Your task to perform on an android device: Empty the shopping cart on newegg.com. Search for "logitech g903" on newegg.com, select the first entry, and add it to the cart. Image 0: 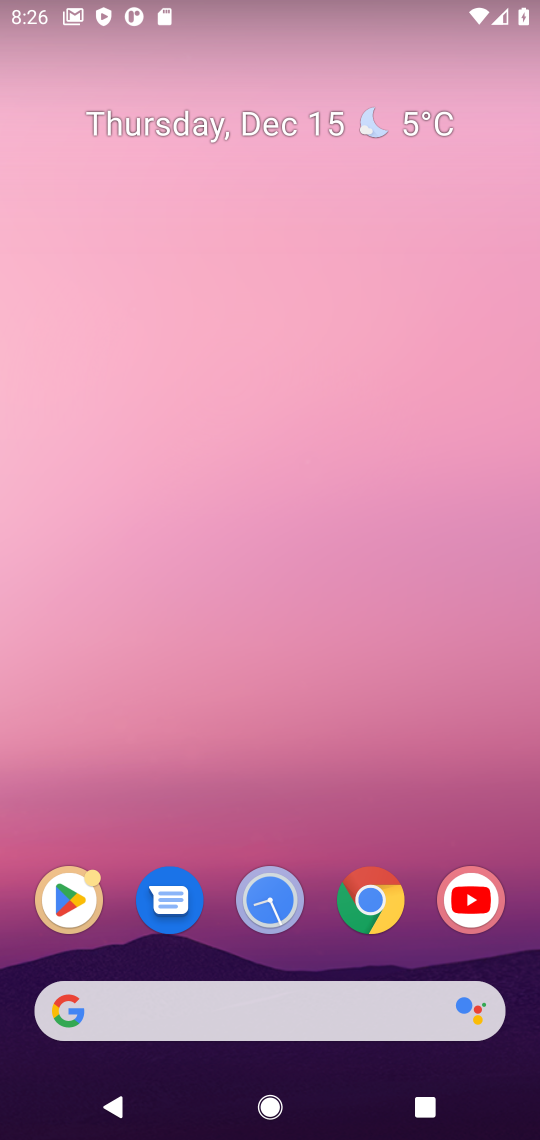
Step 0: click (373, 899)
Your task to perform on an android device: Empty the shopping cart on newegg.com. Search for "logitech g903" on newegg.com, select the first entry, and add it to the cart. Image 1: 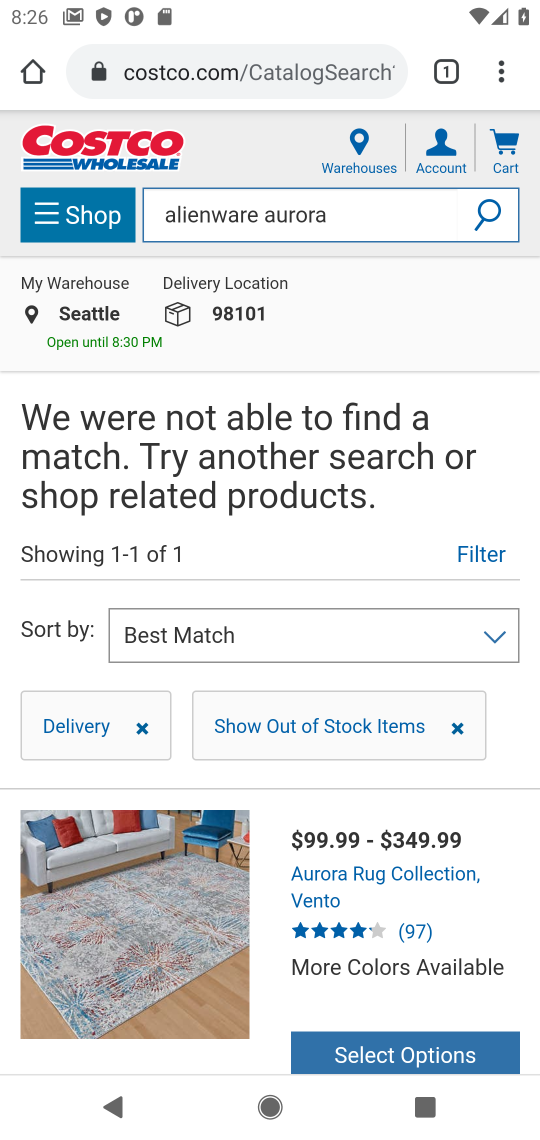
Step 1: click (324, 59)
Your task to perform on an android device: Empty the shopping cart on newegg.com. Search for "logitech g903" on newegg.com, select the first entry, and add it to the cart. Image 2: 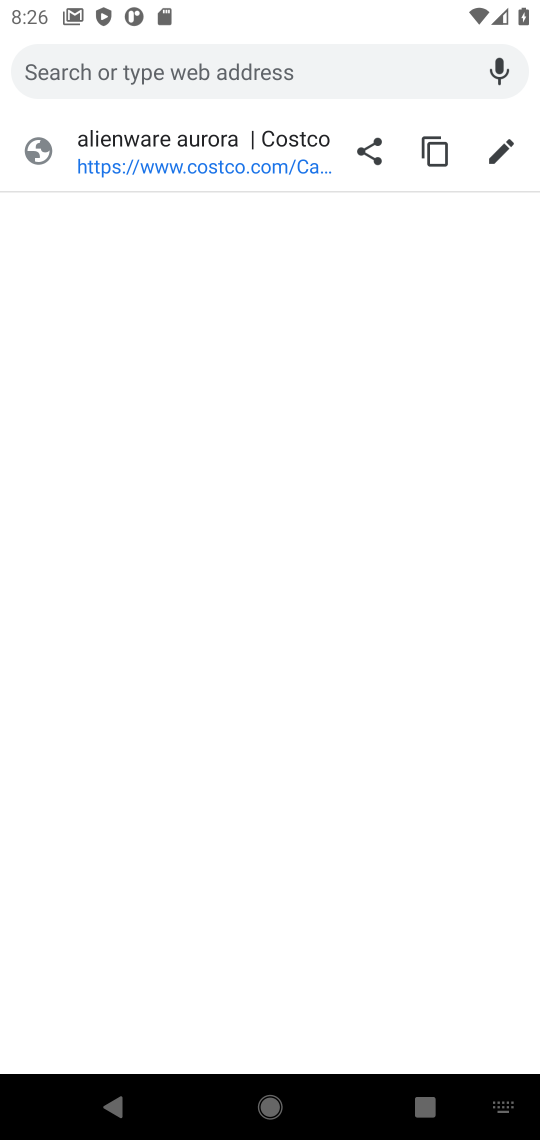
Step 2: type "newegg.com"
Your task to perform on an android device: Empty the shopping cart on newegg.com. Search for "logitech g903" on newegg.com, select the first entry, and add it to the cart. Image 3: 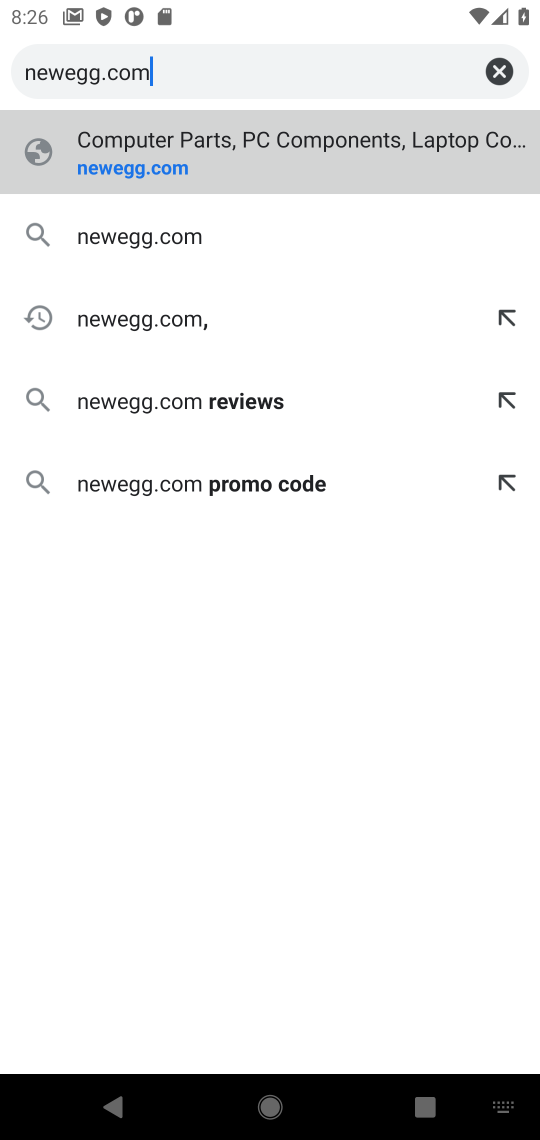
Step 3: click (156, 244)
Your task to perform on an android device: Empty the shopping cart on newegg.com. Search for "logitech g903" on newegg.com, select the first entry, and add it to the cart. Image 4: 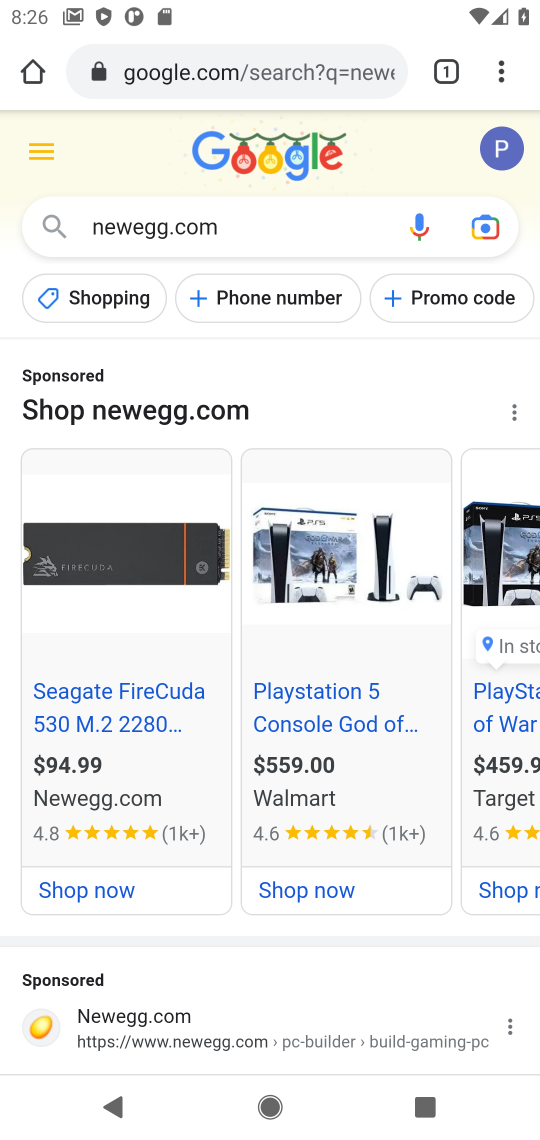
Step 4: click (154, 1019)
Your task to perform on an android device: Empty the shopping cart on newegg.com. Search for "logitech g903" on newegg.com, select the first entry, and add it to the cart. Image 5: 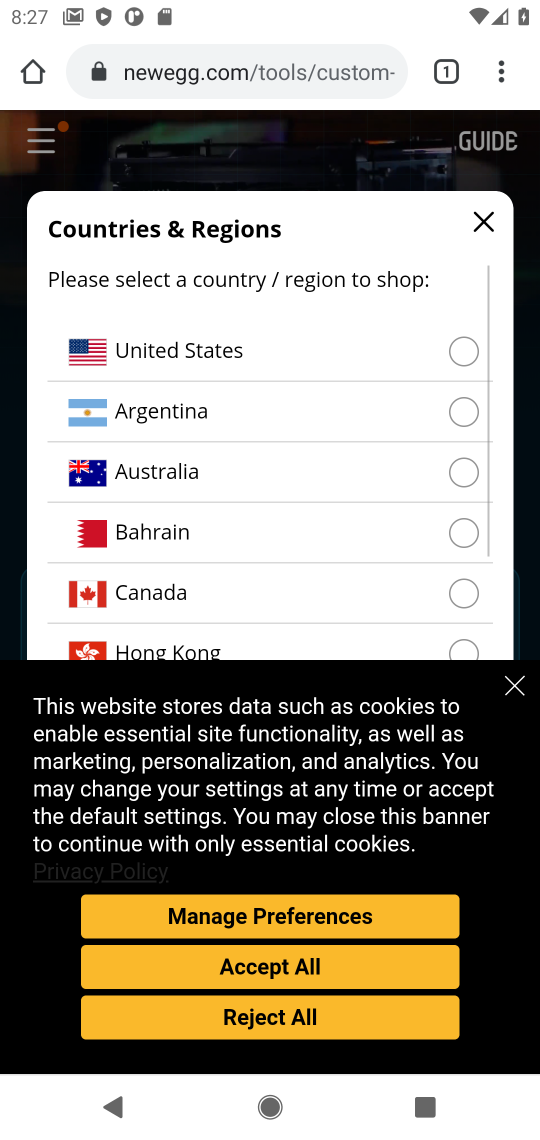
Step 5: press back button
Your task to perform on an android device: Empty the shopping cart on newegg.com. Search for "logitech g903" on newegg.com, select the first entry, and add it to the cart. Image 6: 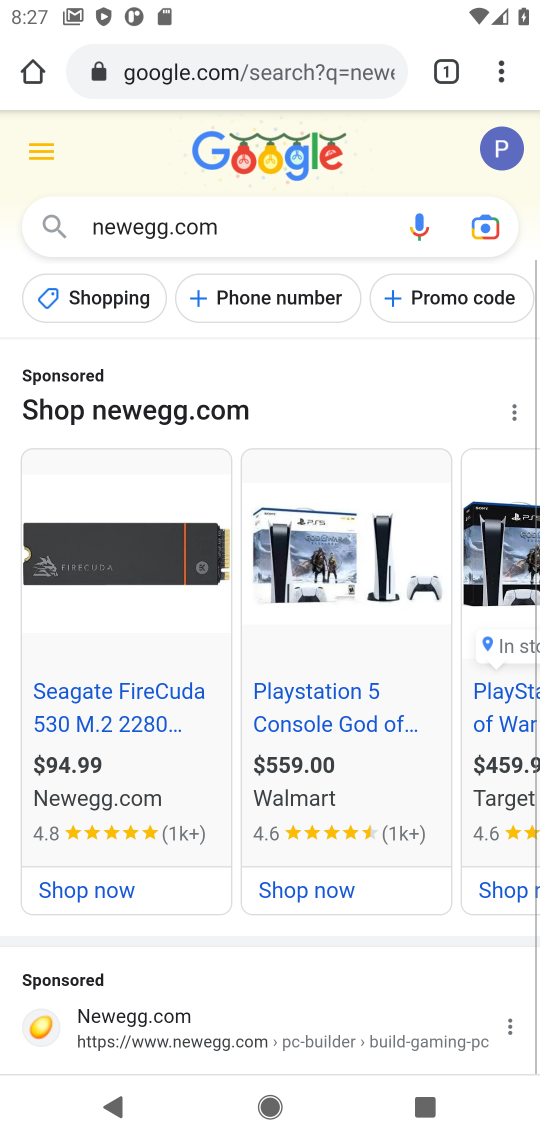
Step 6: drag from (307, 774) to (429, 236)
Your task to perform on an android device: Empty the shopping cart on newegg.com. Search for "logitech g903" on newegg.com, select the first entry, and add it to the cart. Image 7: 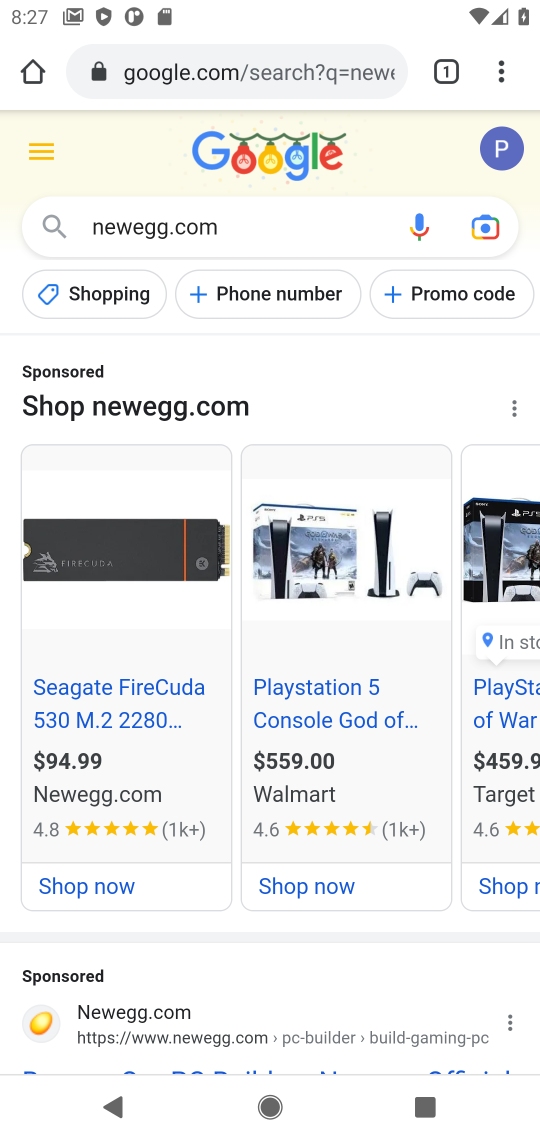
Step 7: drag from (210, 986) to (331, 257)
Your task to perform on an android device: Empty the shopping cart on newegg.com. Search for "logitech g903" on newegg.com, select the first entry, and add it to the cart. Image 8: 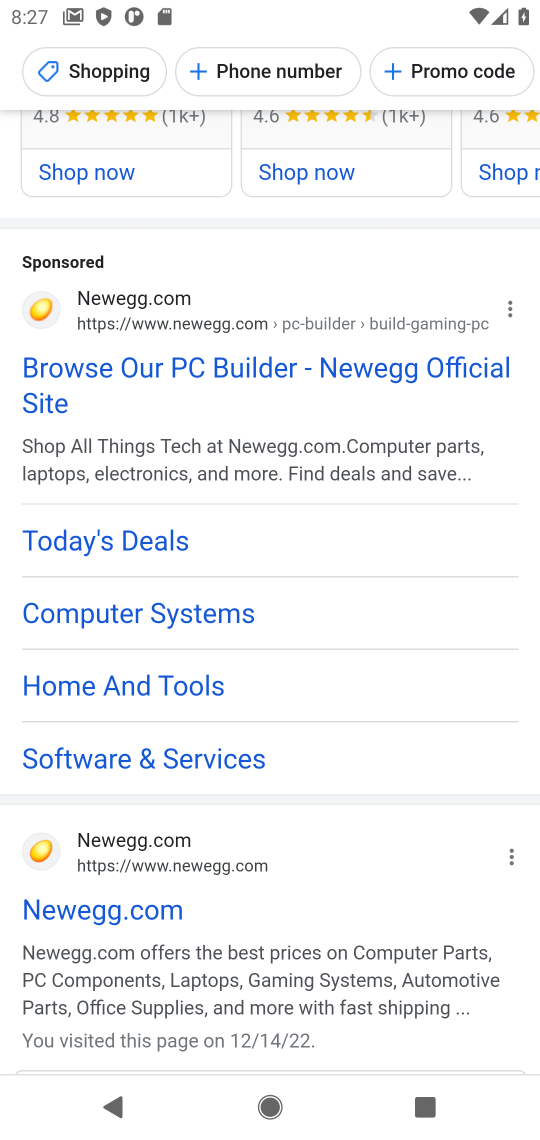
Step 8: click (195, 864)
Your task to perform on an android device: Empty the shopping cart on newegg.com. Search for "logitech g903" on newegg.com, select the first entry, and add it to the cart. Image 9: 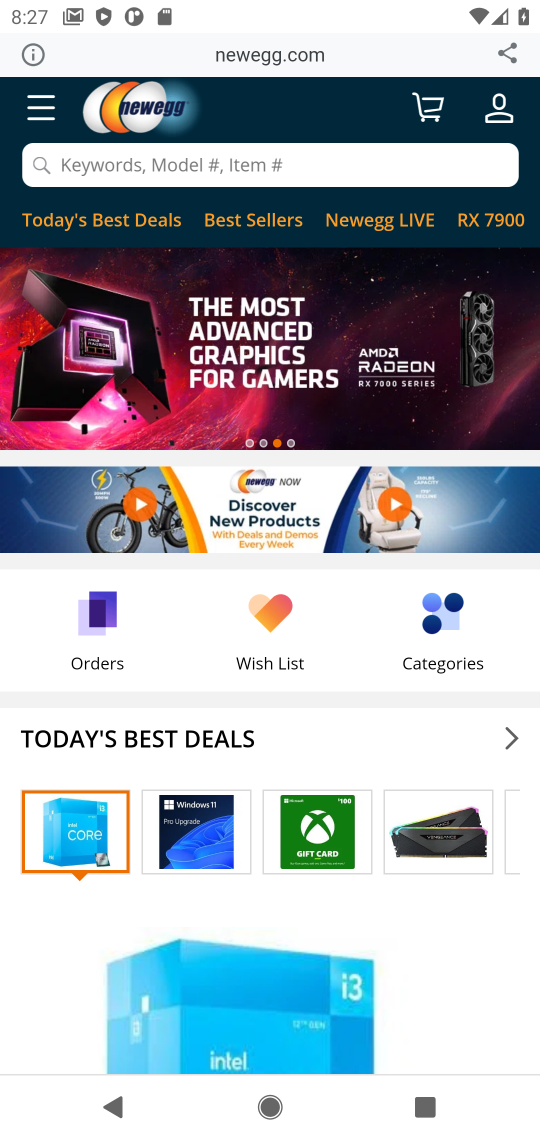
Step 9: click (362, 174)
Your task to perform on an android device: Empty the shopping cart on newegg.com. Search for "logitech g903" on newegg.com, select the first entry, and add it to the cart. Image 10: 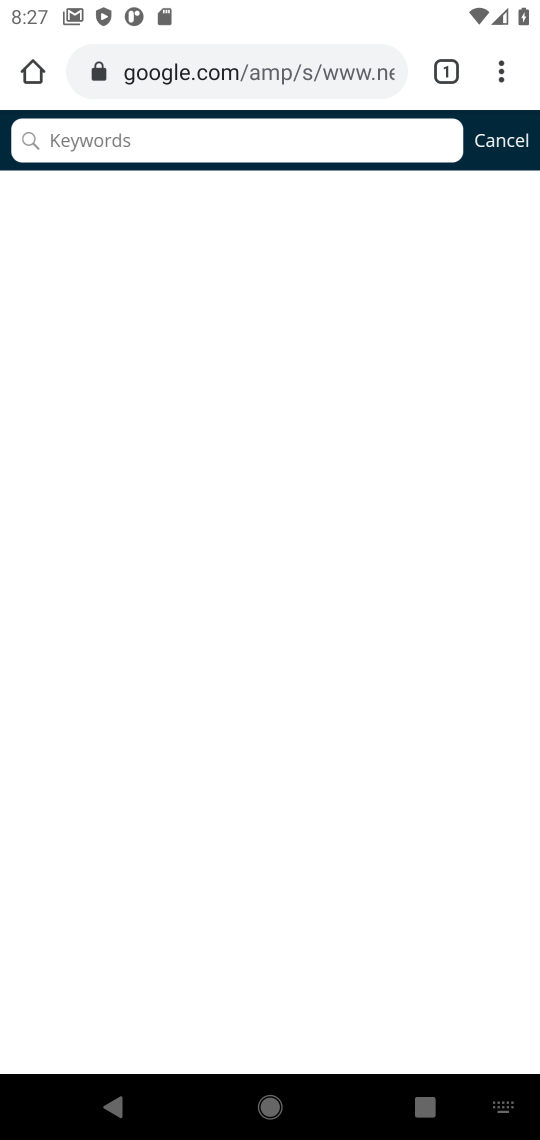
Step 10: click (267, 69)
Your task to perform on an android device: Empty the shopping cart on newegg.com. Search for "logitech g903" on newegg.com, select the first entry, and add it to the cart. Image 11: 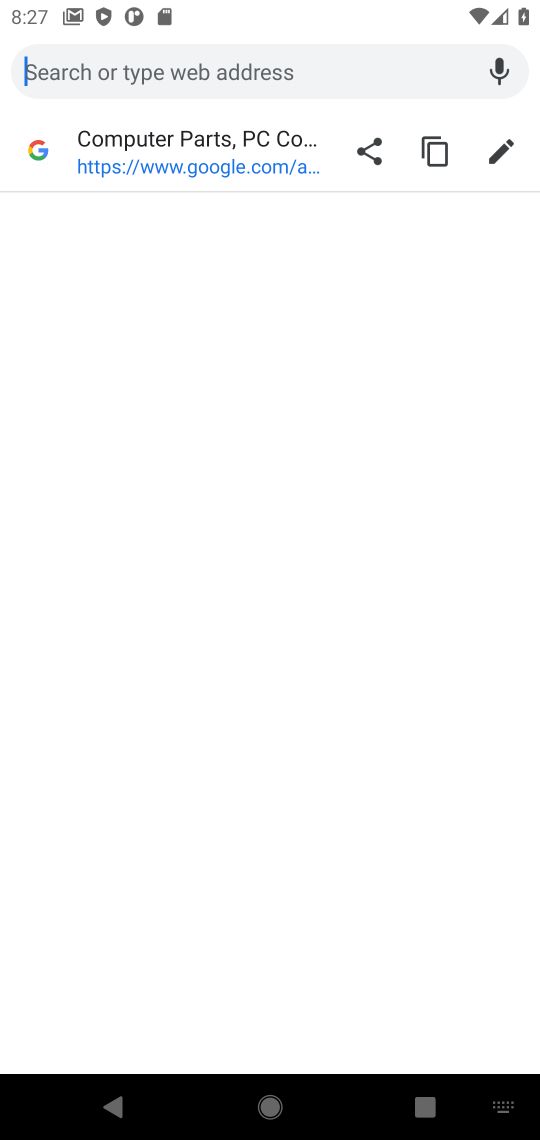
Step 11: type "newegg.com"
Your task to perform on an android device: Empty the shopping cart on newegg.com. Search for "logitech g903" on newegg.com, select the first entry, and add it to the cart. Image 12: 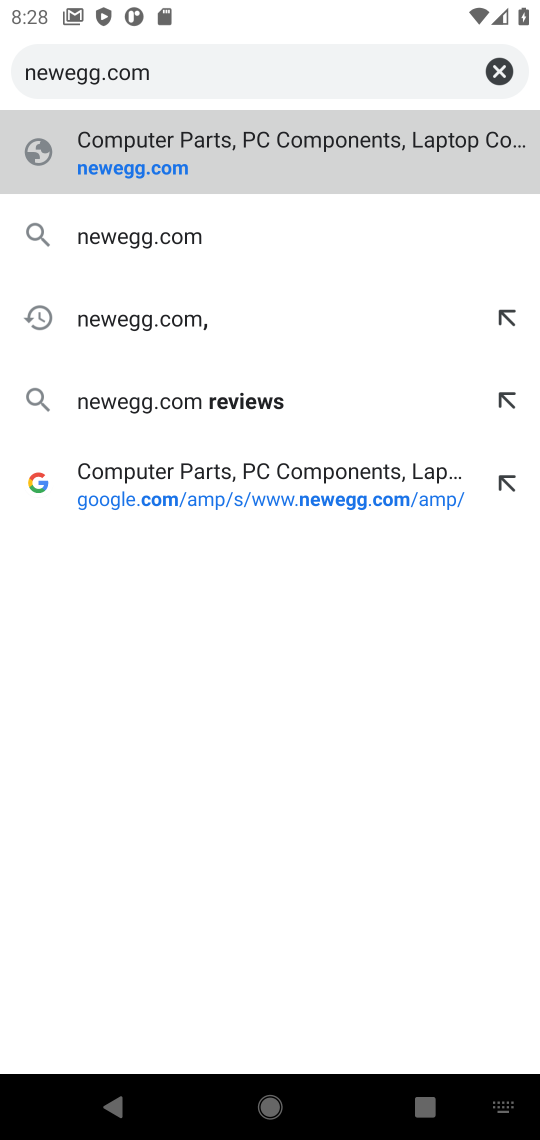
Step 12: click (358, 161)
Your task to perform on an android device: Empty the shopping cart on newegg.com. Search for "logitech g903" on newegg.com, select the first entry, and add it to the cart. Image 13: 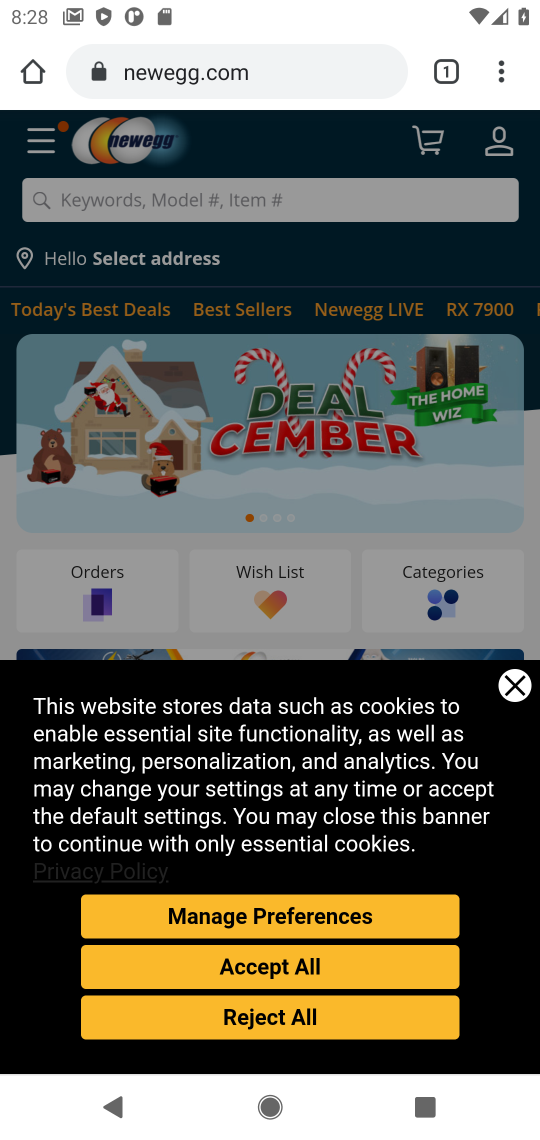
Step 13: click (281, 978)
Your task to perform on an android device: Empty the shopping cart on newegg.com. Search for "logitech g903" on newegg.com, select the first entry, and add it to the cart. Image 14: 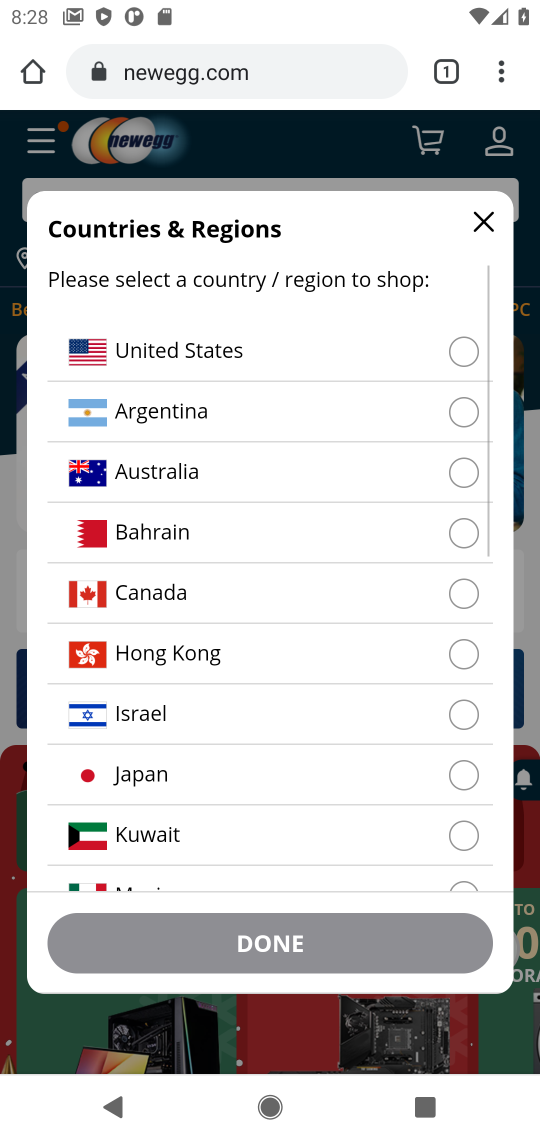
Step 14: click (314, 354)
Your task to perform on an android device: Empty the shopping cart on newegg.com. Search for "logitech g903" on newegg.com, select the first entry, and add it to the cart. Image 15: 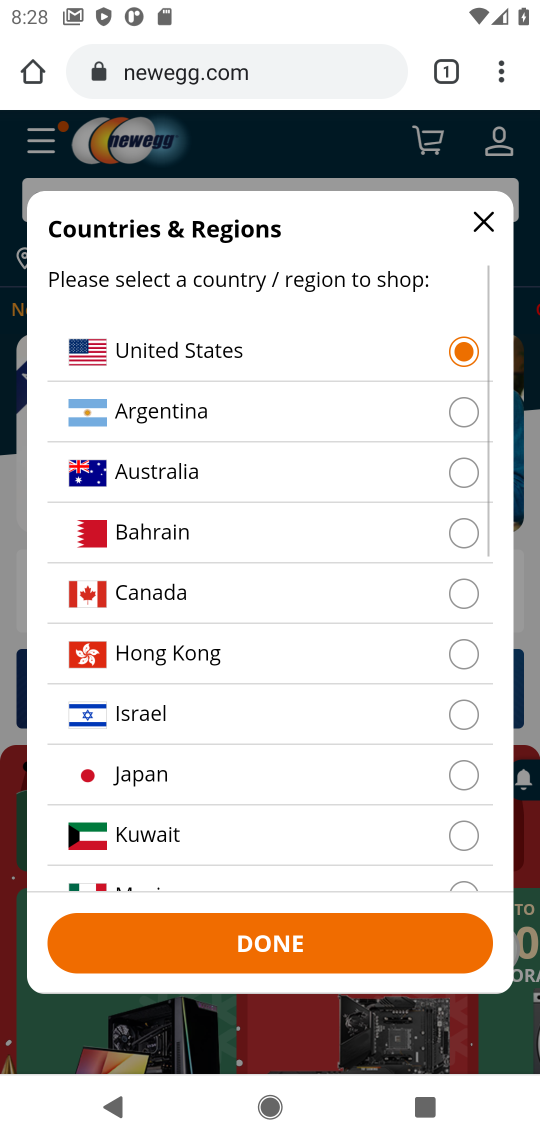
Step 15: click (204, 957)
Your task to perform on an android device: Empty the shopping cart on newegg.com. Search for "logitech g903" on newegg.com, select the first entry, and add it to the cart. Image 16: 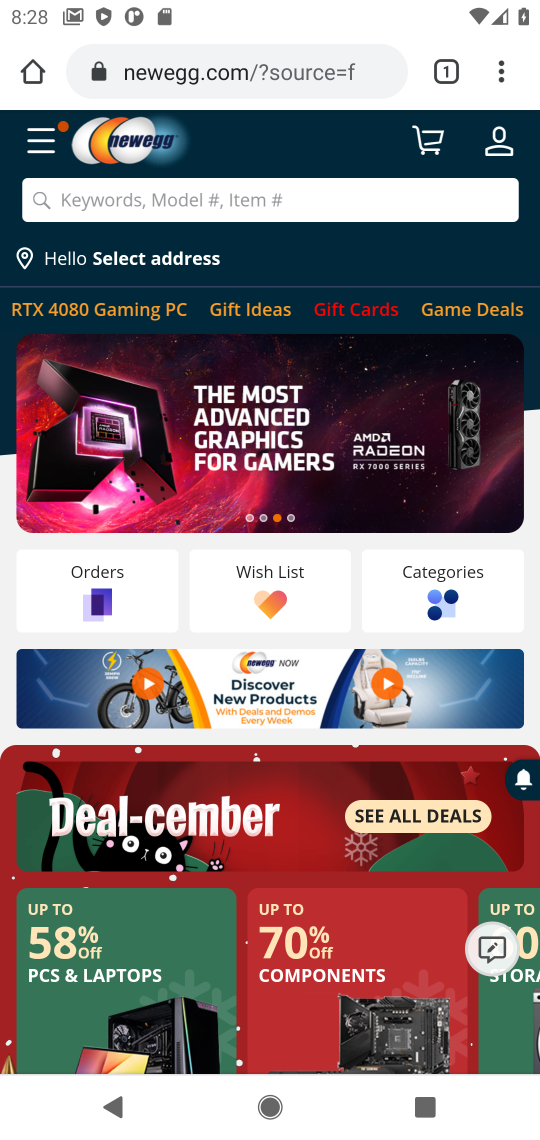
Step 16: click (138, 202)
Your task to perform on an android device: Empty the shopping cart on newegg.com. Search for "logitech g903" on newegg.com, select the first entry, and add it to the cart. Image 17: 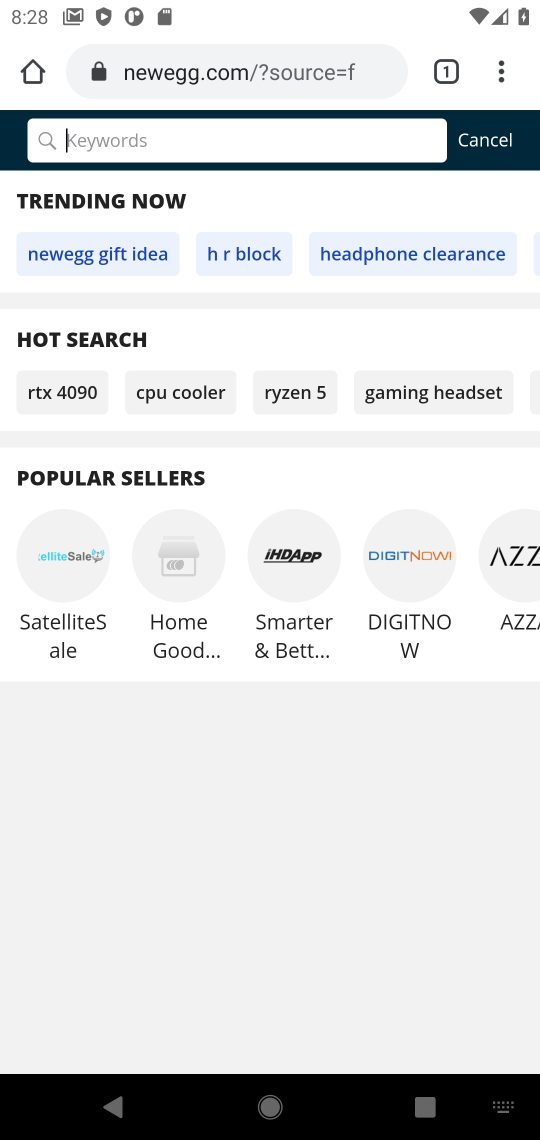
Step 17: type "logitech g903"
Your task to perform on an android device: Empty the shopping cart on newegg.com. Search for "logitech g903" on newegg.com, select the first entry, and add it to the cart. Image 18: 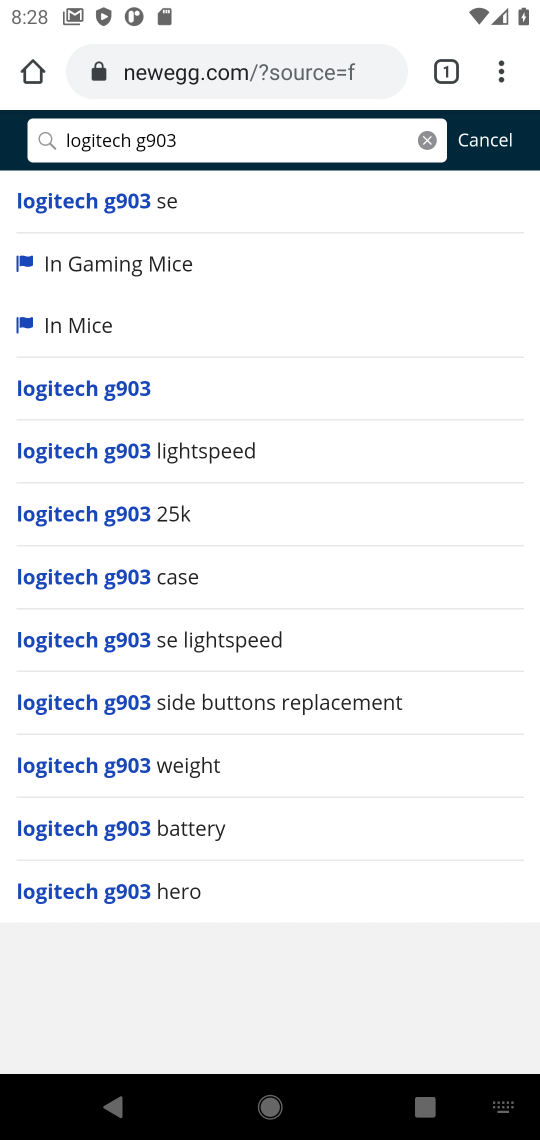
Step 18: press enter
Your task to perform on an android device: Empty the shopping cart on newegg.com. Search for "logitech g903" on newegg.com, select the first entry, and add it to the cart. Image 19: 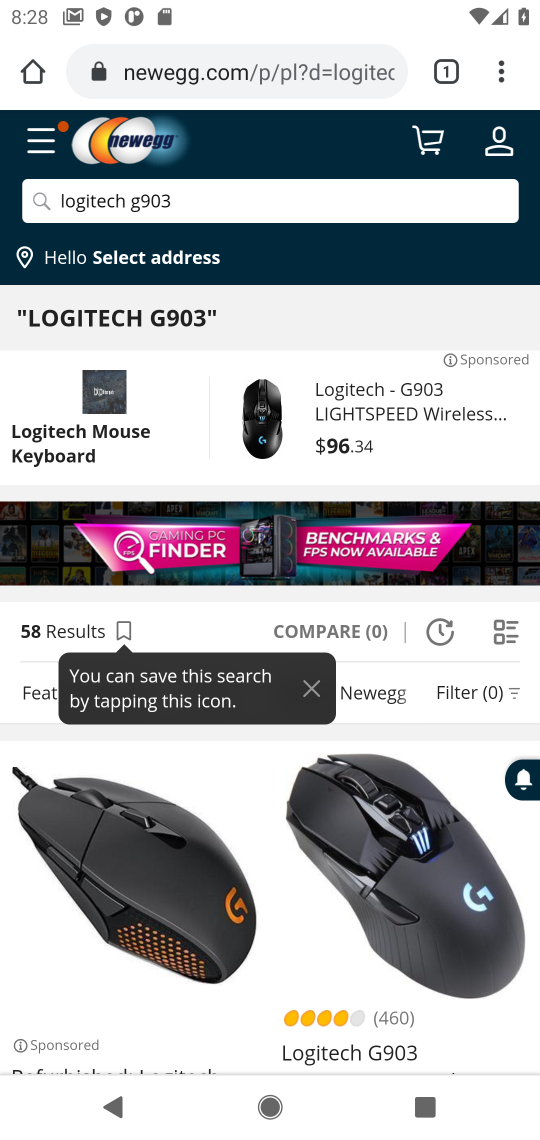
Step 19: drag from (267, 812) to (278, 448)
Your task to perform on an android device: Empty the shopping cart on newegg.com. Search for "logitech g903" on newegg.com, select the first entry, and add it to the cart. Image 20: 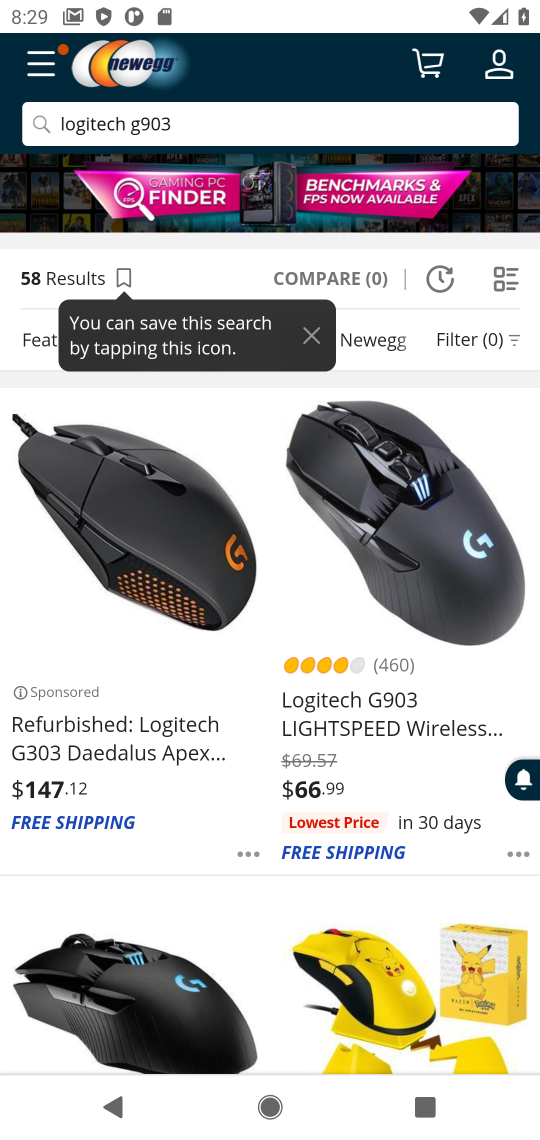
Step 20: click (379, 731)
Your task to perform on an android device: Empty the shopping cart on newegg.com. Search for "logitech g903" on newegg.com, select the first entry, and add it to the cart. Image 21: 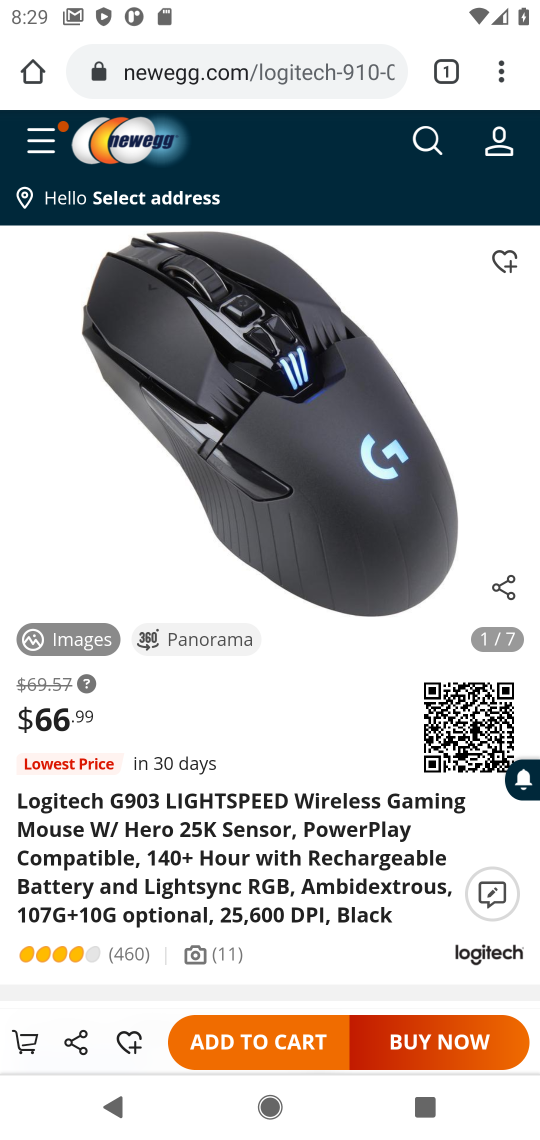
Step 21: click (228, 1038)
Your task to perform on an android device: Empty the shopping cart on newegg.com. Search for "logitech g903" on newegg.com, select the first entry, and add it to the cart. Image 22: 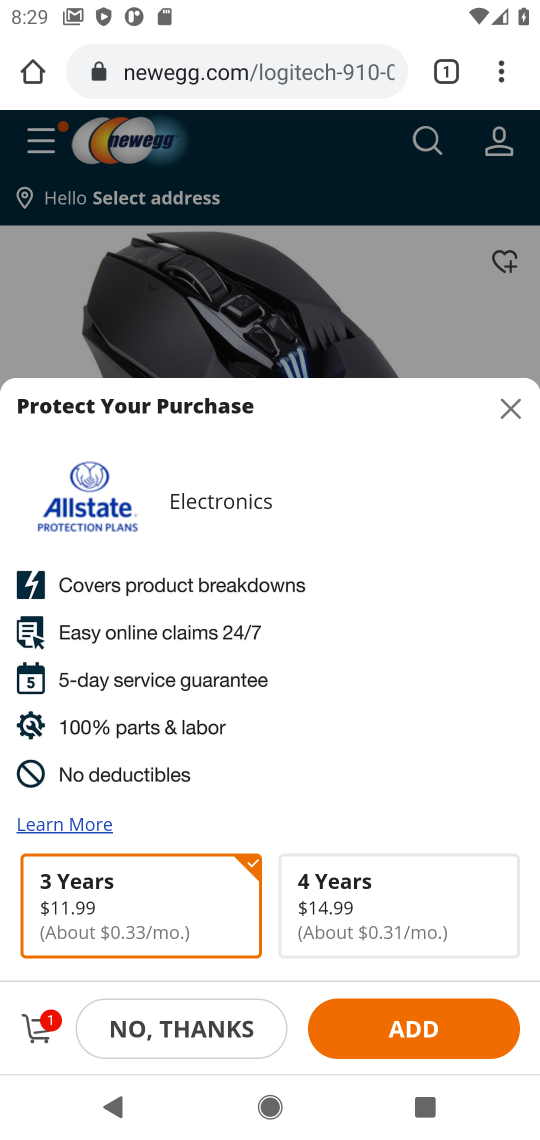
Step 22: click (367, 1025)
Your task to perform on an android device: Empty the shopping cart on newegg.com. Search for "logitech g903" on newegg.com, select the first entry, and add it to the cart. Image 23: 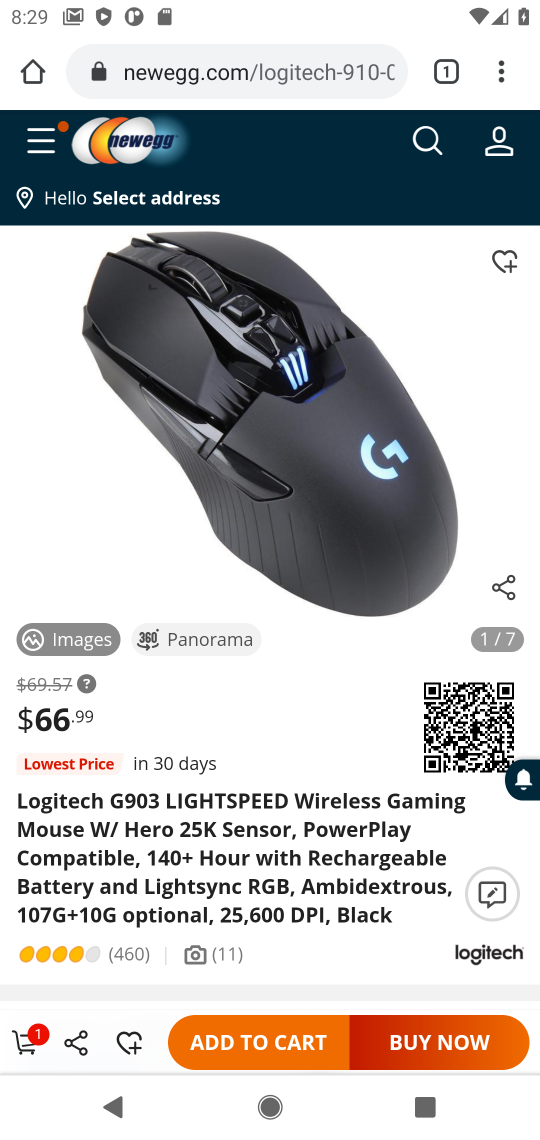
Step 23: task complete